Your task to perform on an android device: Open Chrome and go to the settings page Image 0: 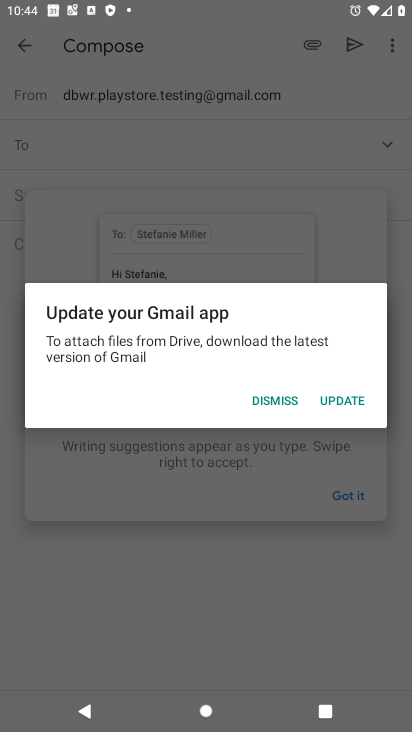
Step 0: press home button
Your task to perform on an android device: Open Chrome and go to the settings page Image 1: 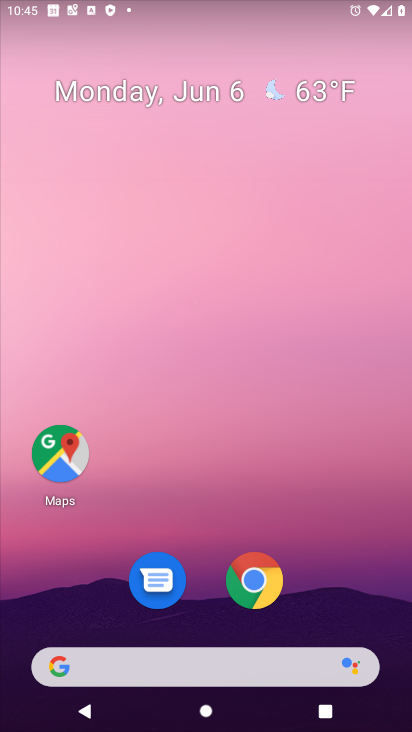
Step 1: drag from (326, 547) to (386, 31)
Your task to perform on an android device: Open Chrome and go to the settings page Image 2: 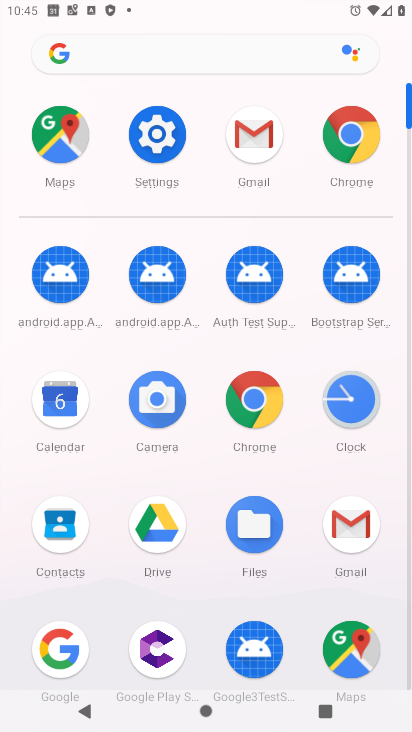
Step 2: click (363, 118)
Your task to perform on an android device: Open Chrome and go to the settings page Image 3: 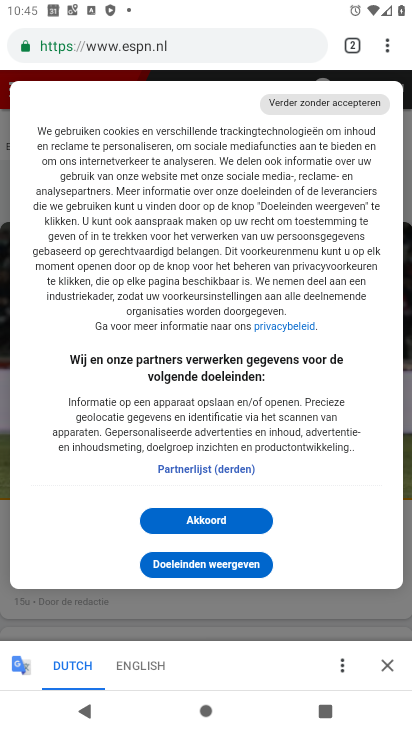
Step 3: task complete